Your task to perform on an android device: turn on improve location accuracy Image 0: 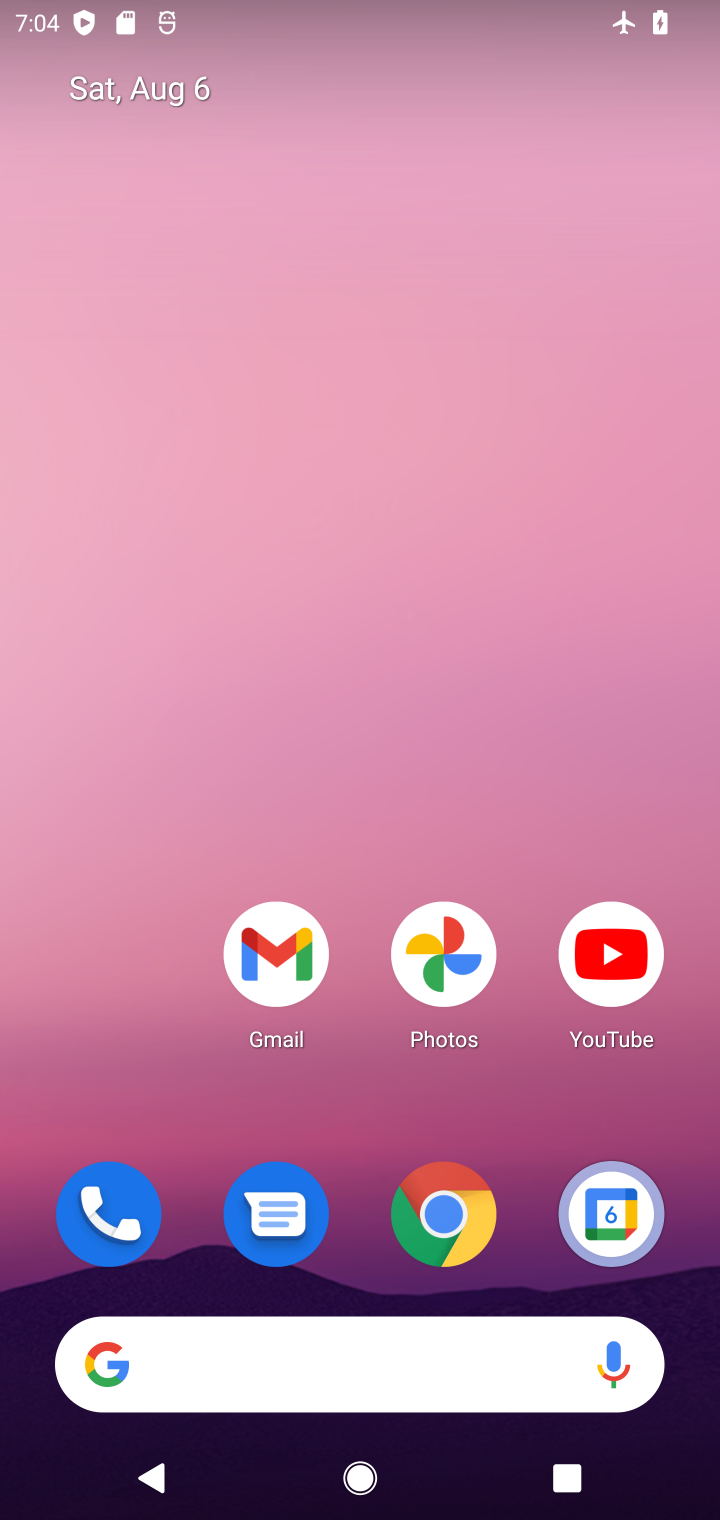
Step 0: drag from (326, 1297) to (316, 25)
Your task to perform on an android device: turn on improve location accuracy Image 1: 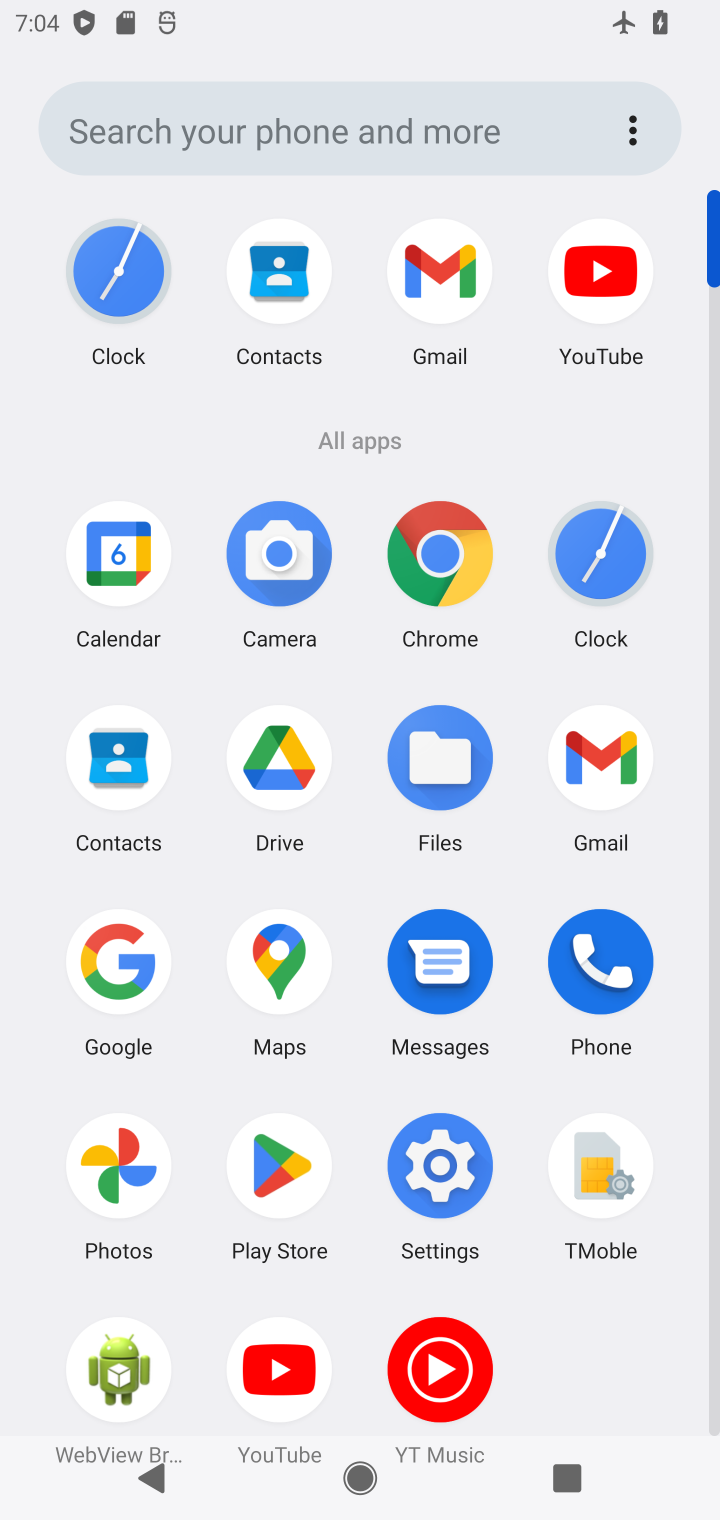
Step 1: click (440, 1193)
Your task to perform on an android device: turn on improve location accuracy Image 2: 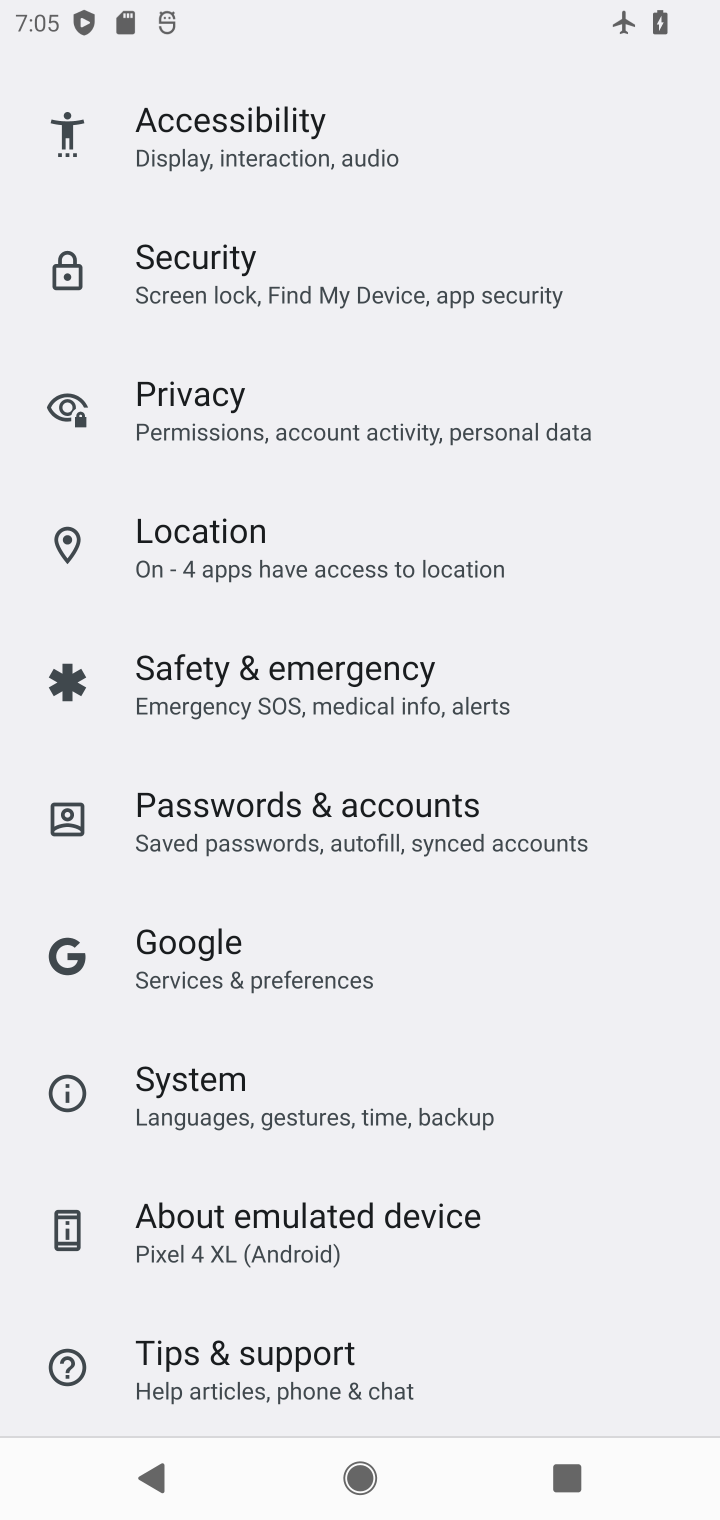
Step 2: drag from (364, 502) to (405, 1278)
Your task to perform on an android device: turn on improve location accuracy Image 3: 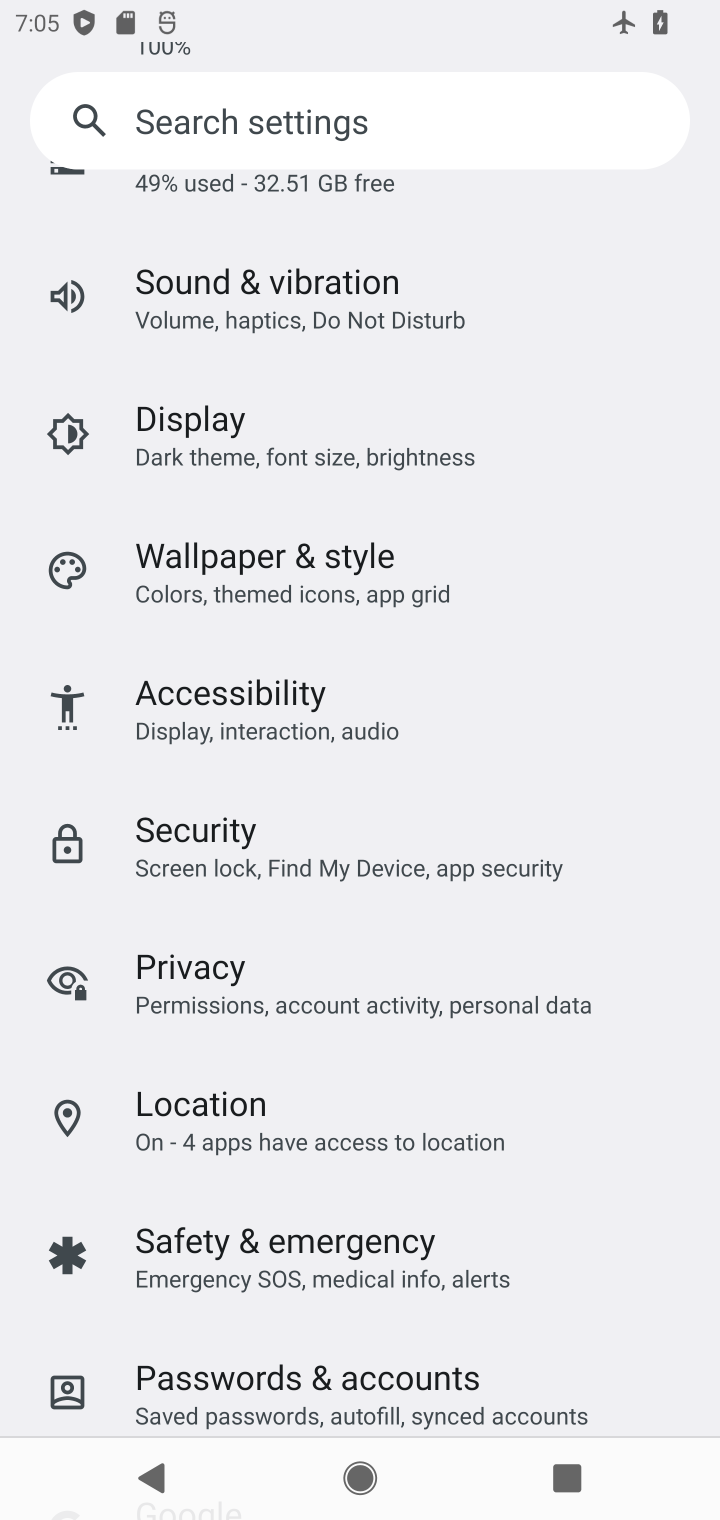
Step 3: drag from (356, 351) to (294, 214)
Your task to perform on an android device: turn on improve location accuracy Image 4: 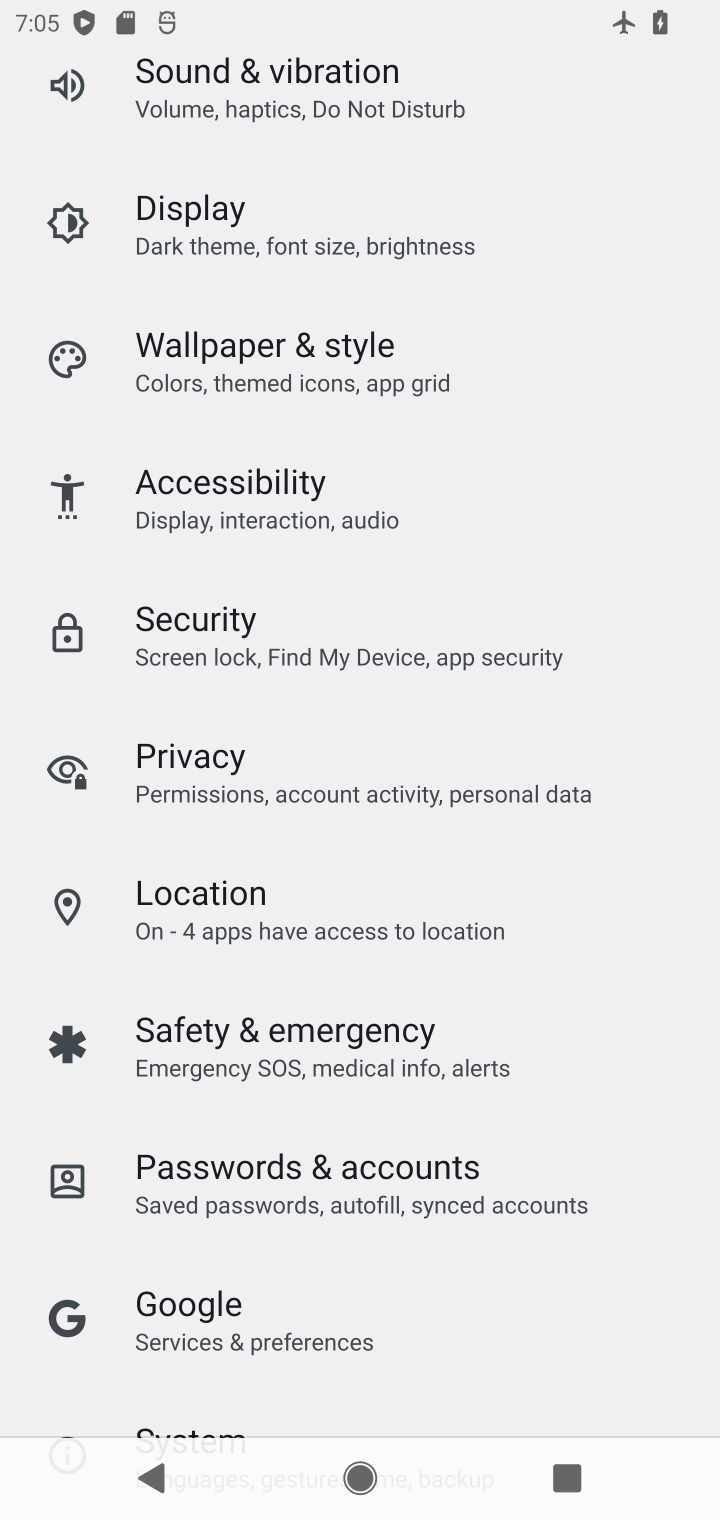
Step 4: click (202, 918)
Your task to perform on an android device: turn on improve location accuracy Image 5: 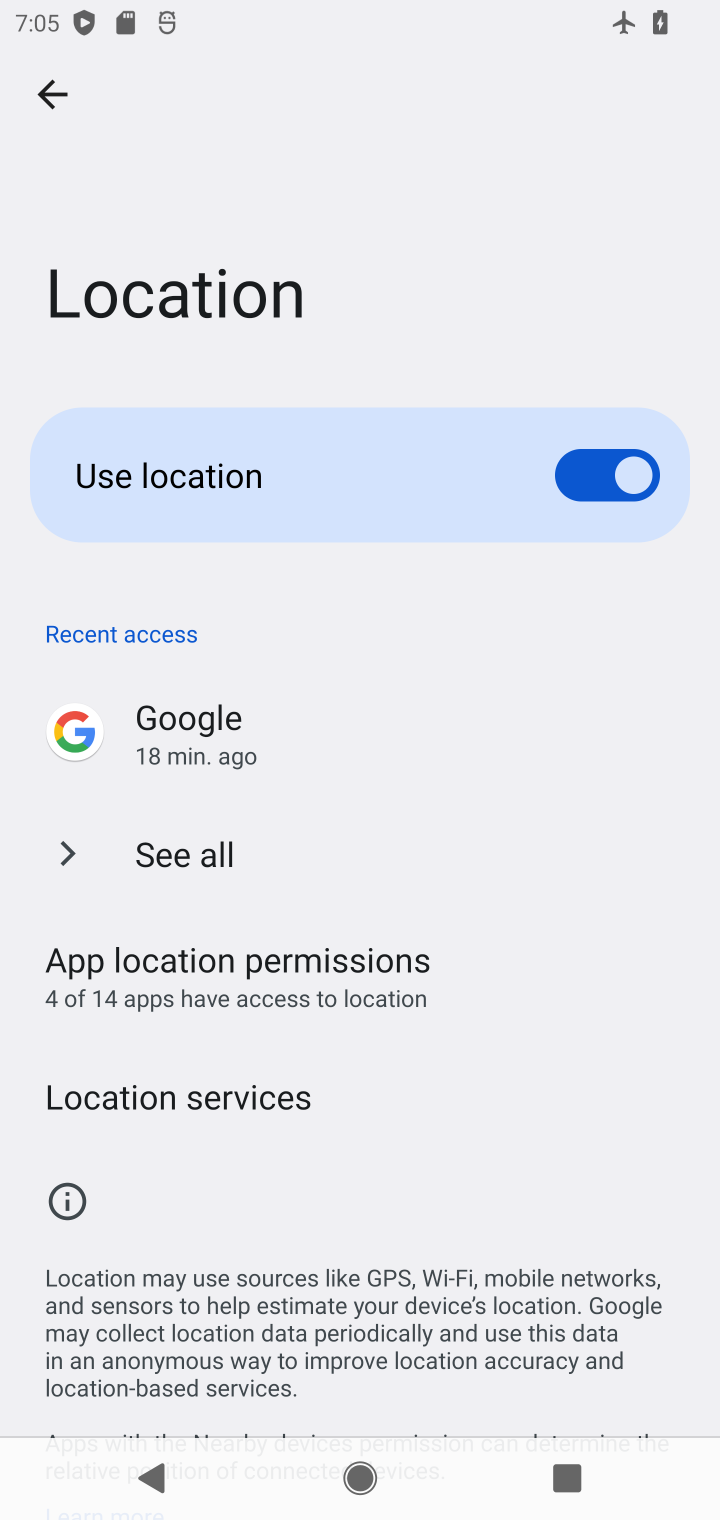
Step 5: click (203, 1086)
Your task to perform on an android device: turn on improve location accuracy Image 6: 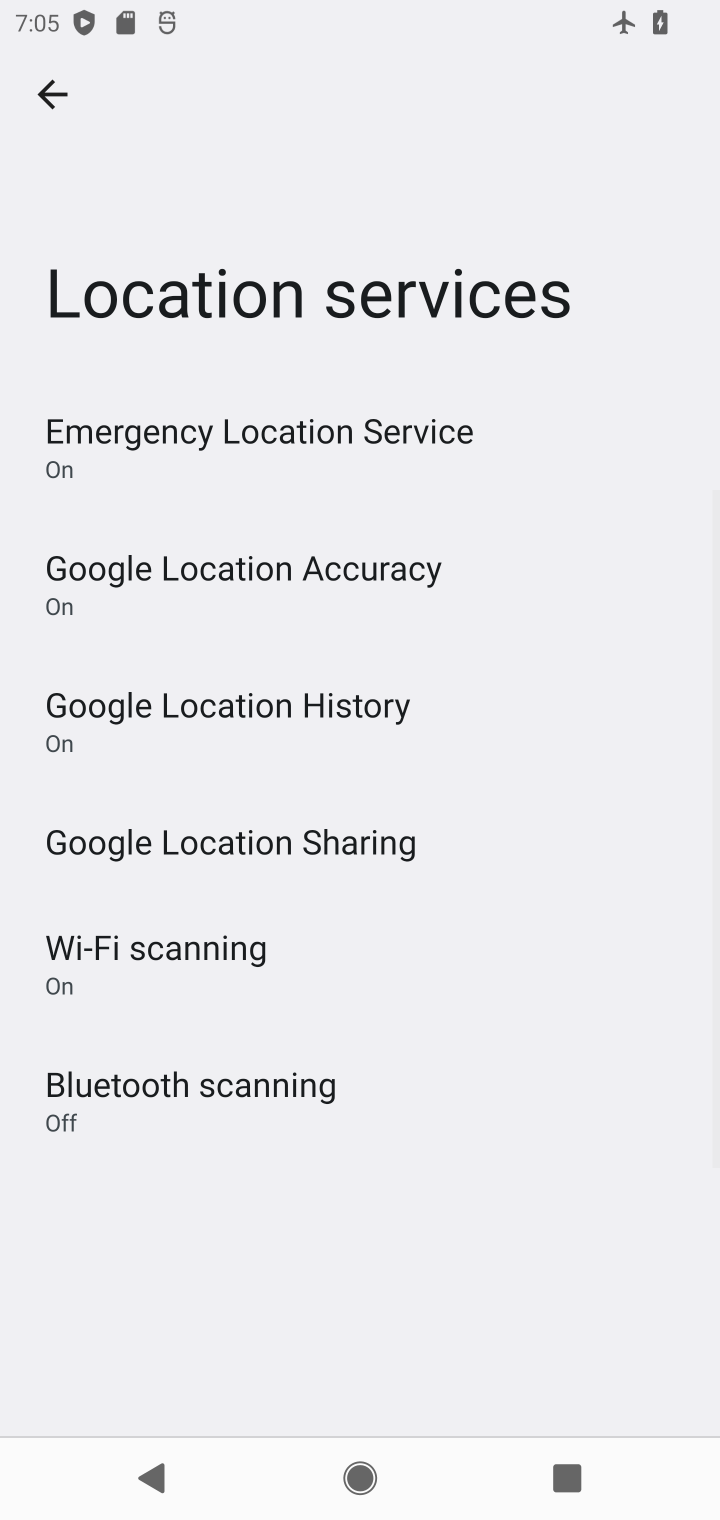
Step 6: click (283, 599)
Your task to perform on an android device: turn on improve location accuracy Image 7: 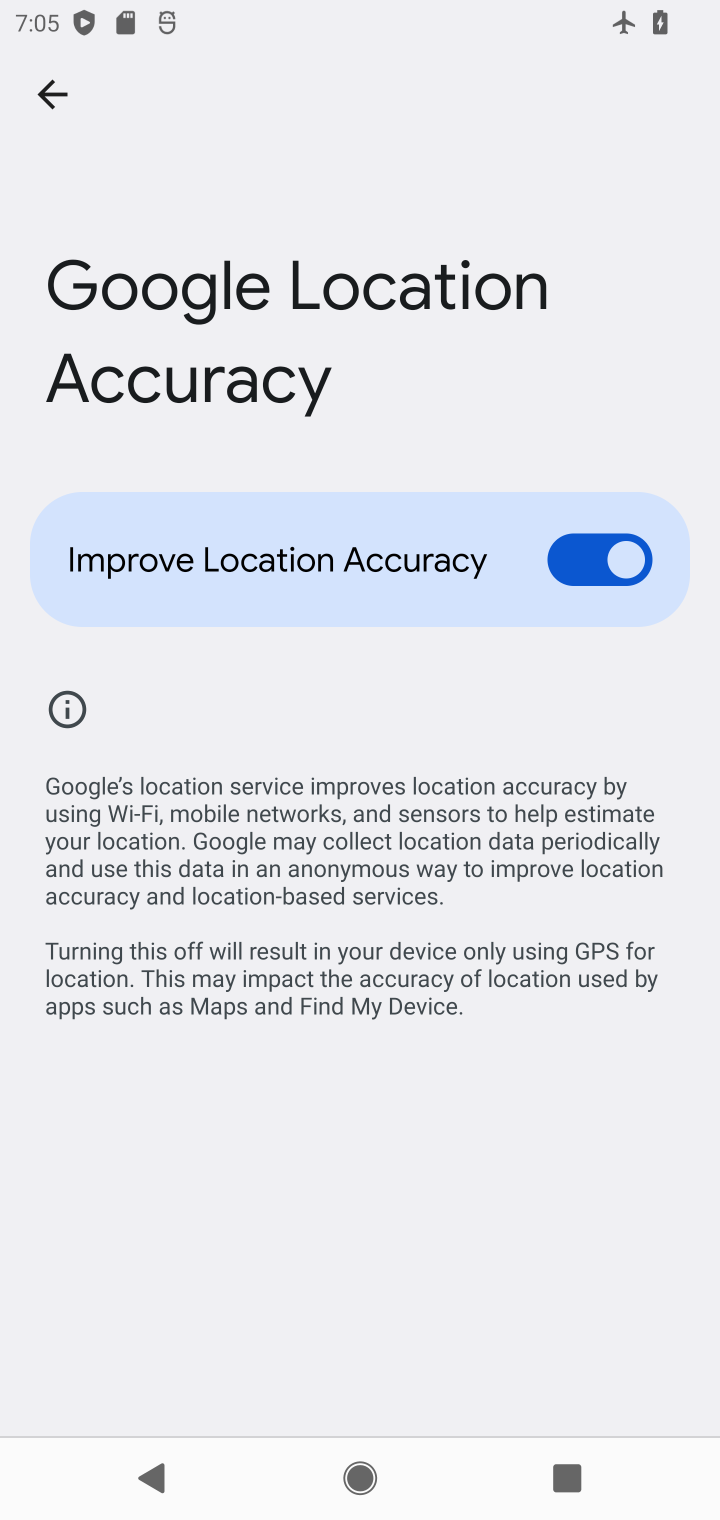
Step 7: task complete